Your task to perform on an android device: turn vacation reply on in the gmail app Image 0: 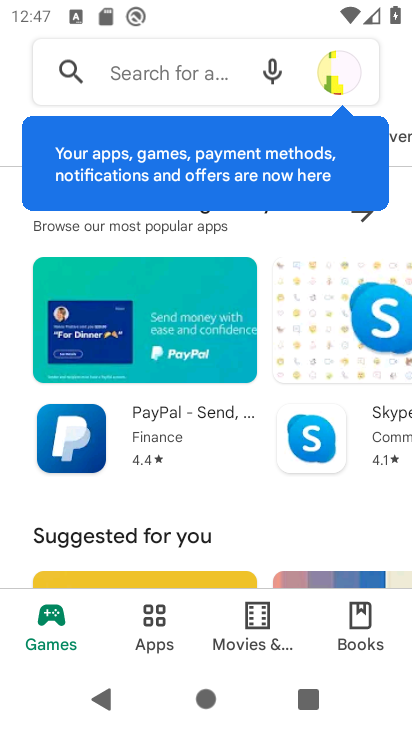
Step 0: press home button
Your task to perform on an android device: turn vacation reply on in the gmail app Image 1: 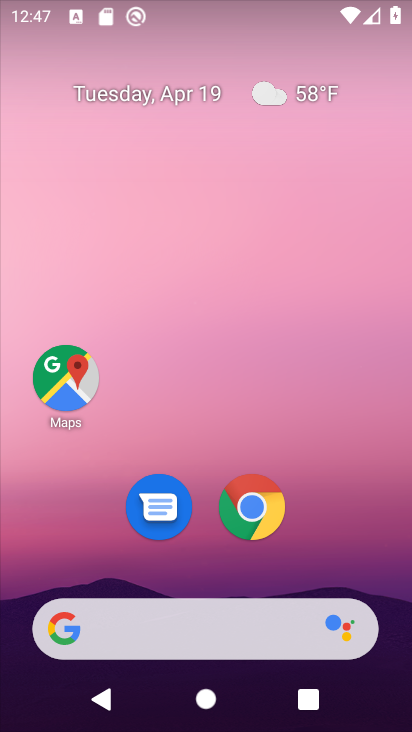
Step 1: drag from (207, 560) to (207, 87)
Your task to perform on an android device: turn vacation reply on in the gmail app Image 2: 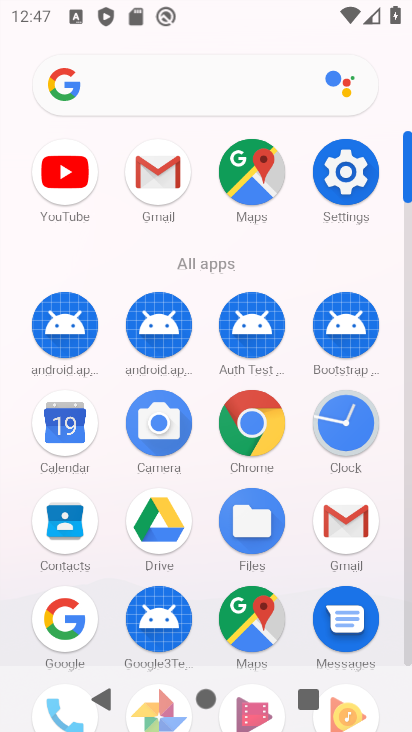
Step 2: click (338, 521)
Your task to perform on an android device: turn vacation reply on in the gmail app Image 3: 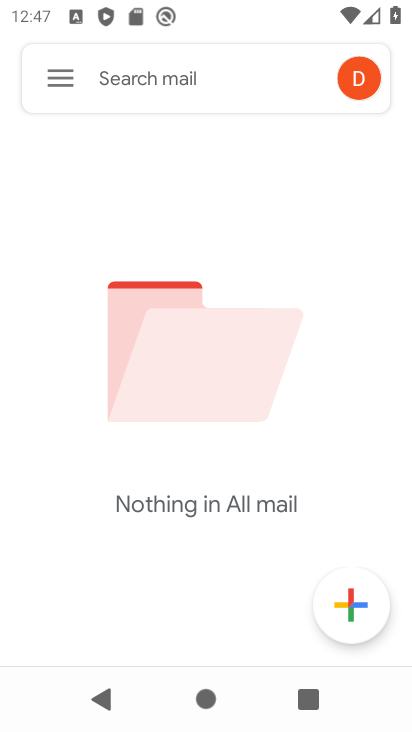
Step 3: click (60, 82)
Your task to perform on an android device: turn vacation reply on in the gmail app Image 4: 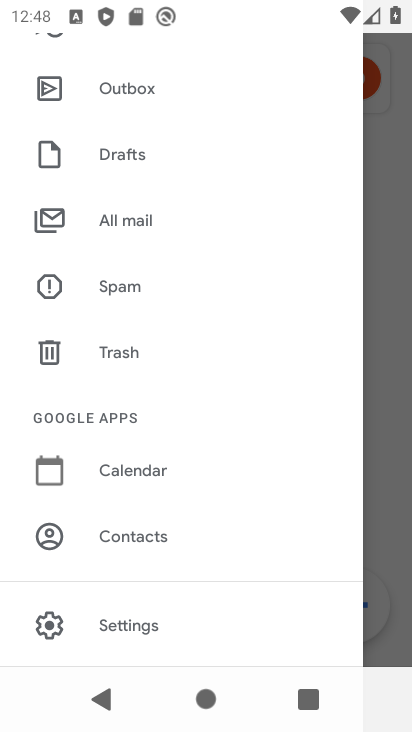
Step 4: click (116, 620)
Your task to perform on an android device: turn vacation reply on in the gmail app Image 5: 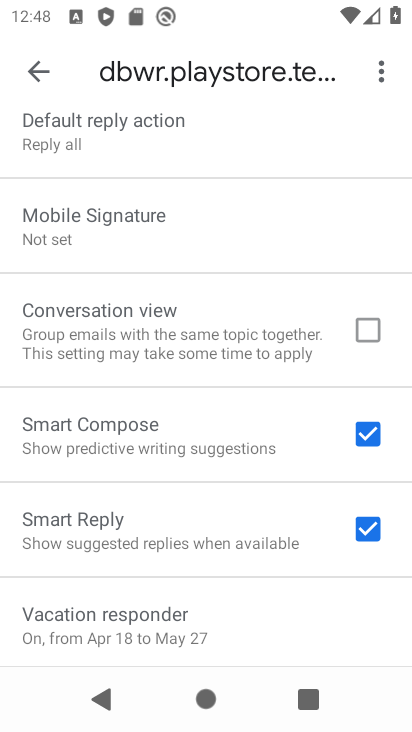
Step 5: click (144, 611)
Your task to perform on an android device: turn vacation reply on in the gmail app Image 6: 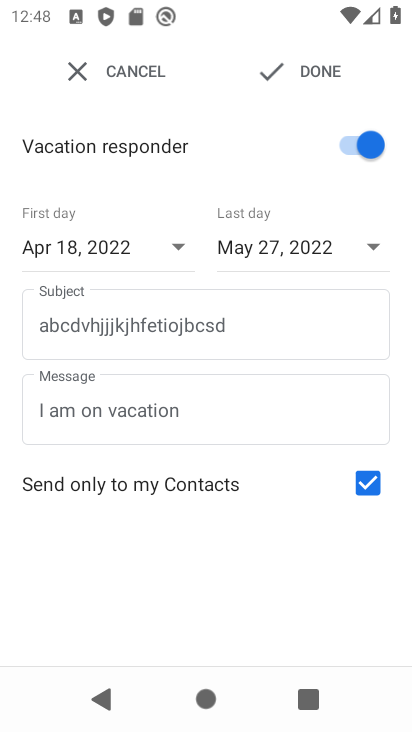
Step 6: click (301, 61)
Your task to perform on an android device: turn vacation reply on in the gmail app Image 7: 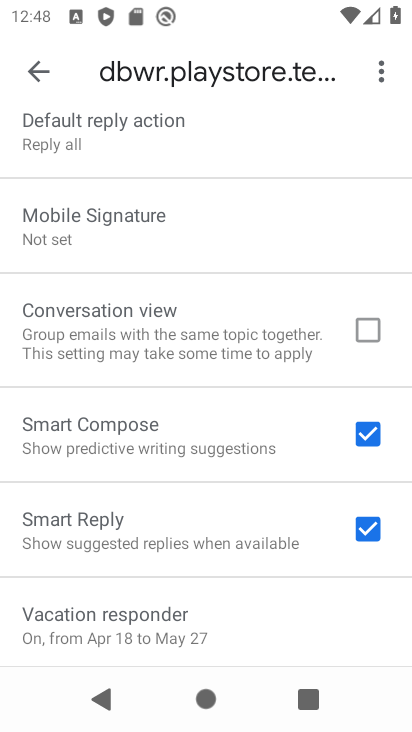
Step 7: task complete